Your task to perform on an android device: Go to display settings Image 0: 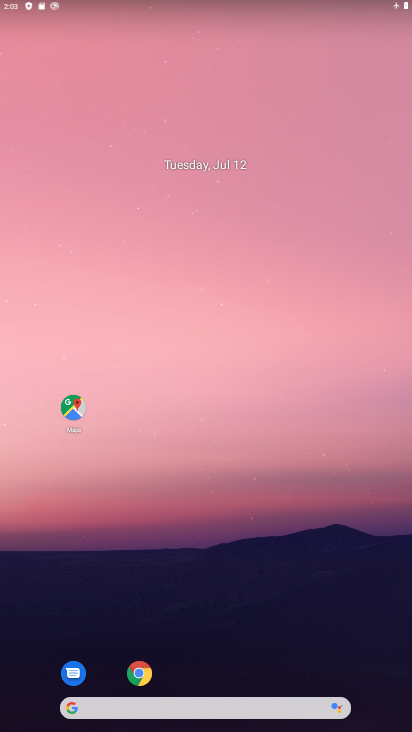
Step 0: drag from (262, 658) to (279, 225)
Your task to perform on an android device: Go to display settings Image 1: 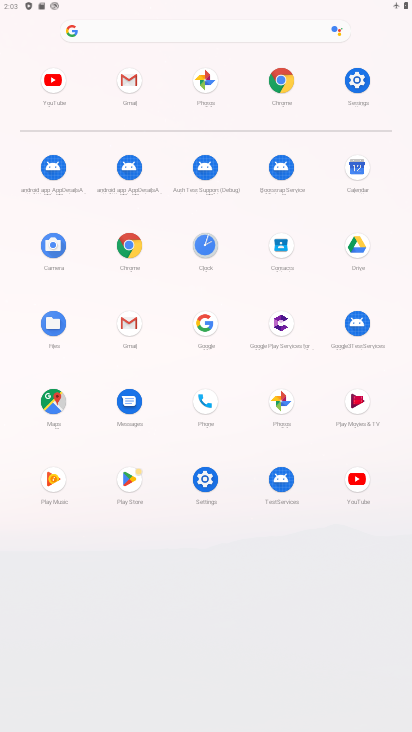
Step 1: click (360, 79)
Your task to perform on an android device: Go to display settings Image 2: 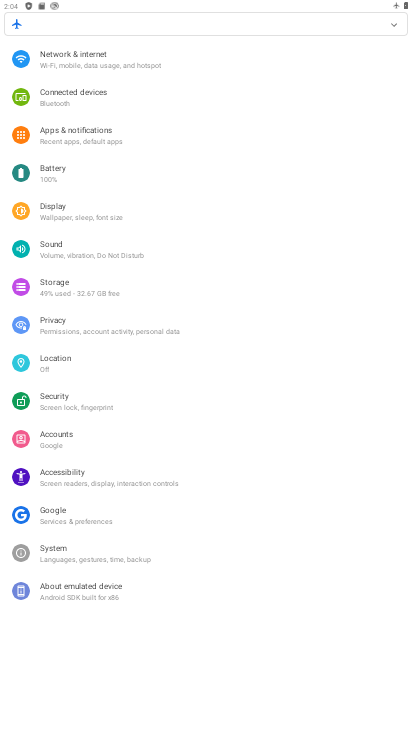
Step 2: click (66, 214)
Your task to perform on an android device: Go to display settings Image 3: 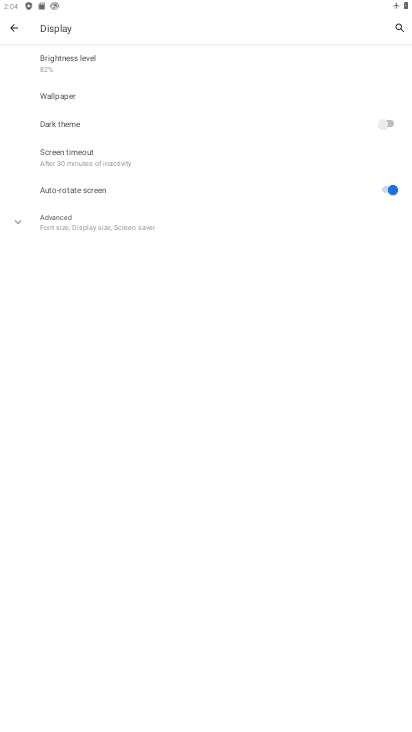
Step 3: task complete